Your task to perform on an android device: turn off sleep mode Image 0: 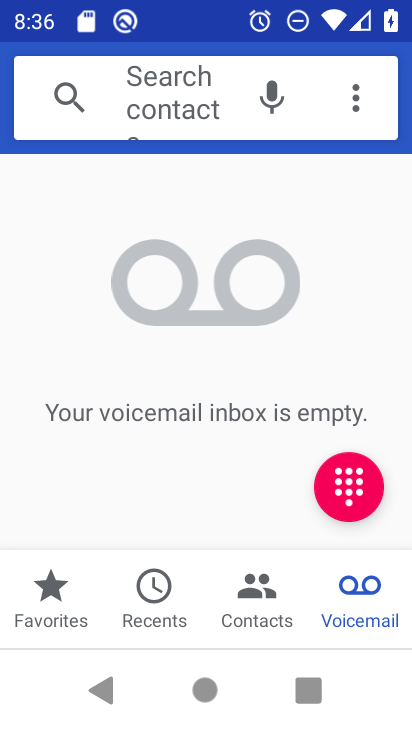
Step 0: press home button
Your task to perform on an android device: turn off sleep mode Image 1: 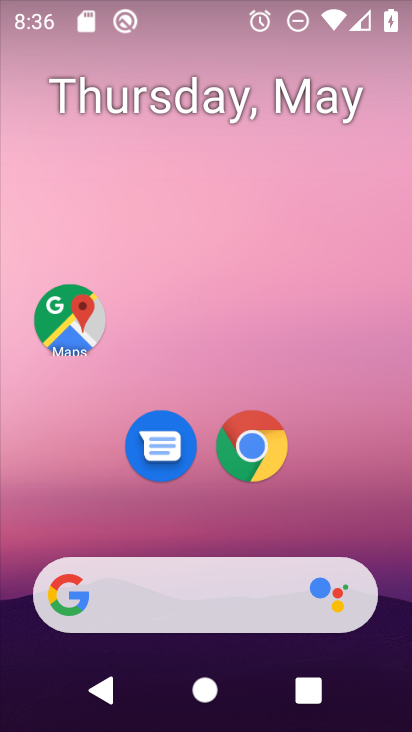
Step 1: drag from (360, 526) to (398, 128)
Your task to perform on an android device: turn off sleep mode Image 2: 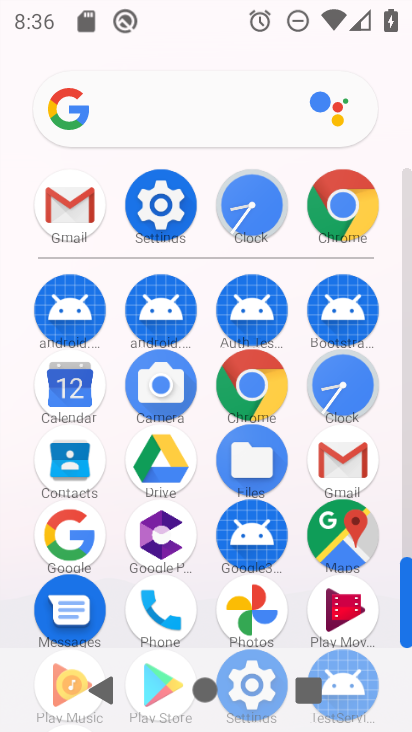
Step 2: drag from (285, 582) to (252, 248)
Your task to perform on an android device: turn off sleep mode Image 3: 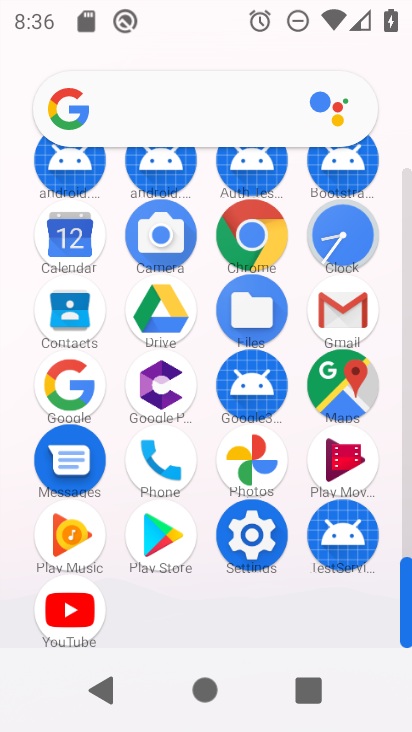
Step 3: click (260, 555)
Your task to perform on an android device: turn off sleep mode Image 4: 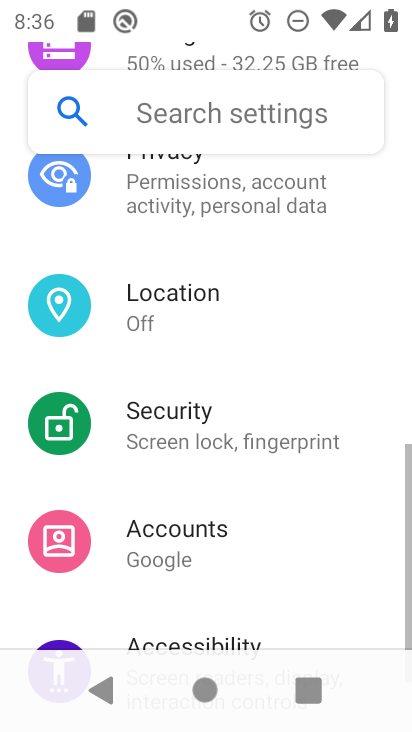
Step 4: click (221, 125)
Your task to perform on an android device: turn off sleep mode Image 5: 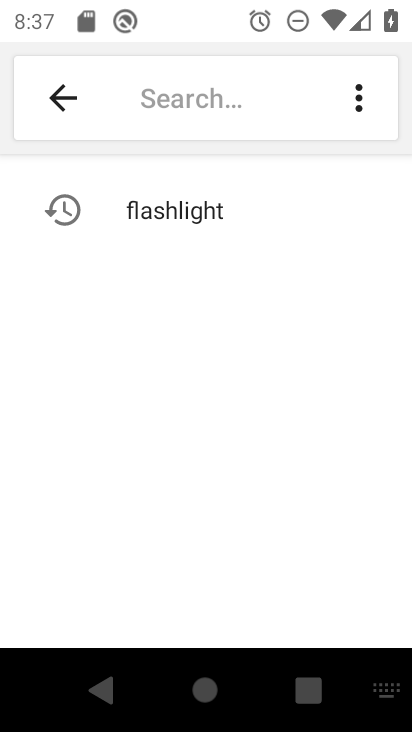
Step 5: type "sleep mode"
Your task to perform on an android device: turn off sleep mode Image 6: 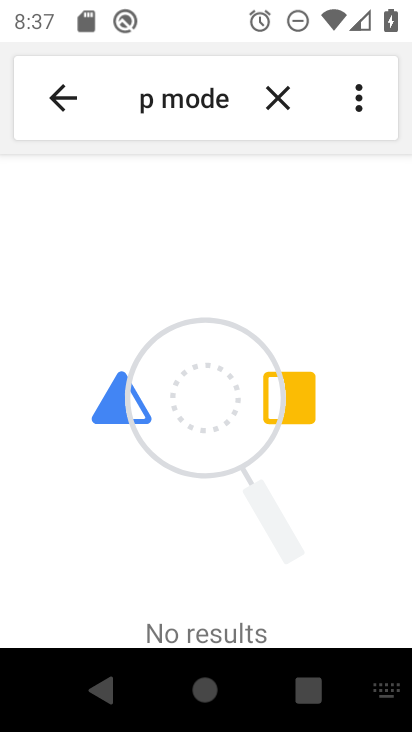
Step 6: task complete